Your task to perform on an android device: Open calendar and show me the second week of next month Image 0: 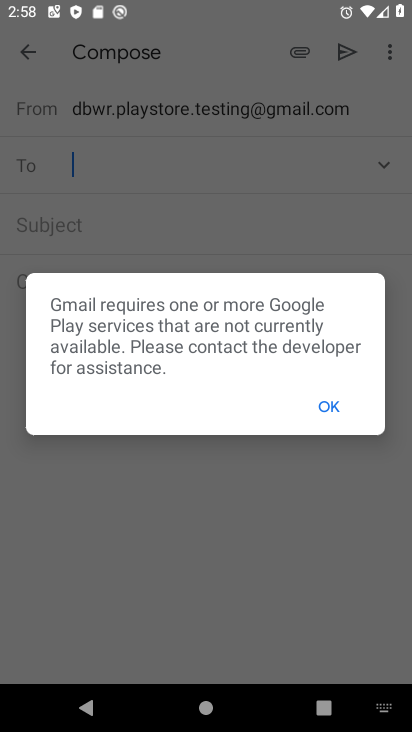
Step 0: click (336, 429)
Your task to perform on an android device: Open calendar and show me the second week of next month Image 1: 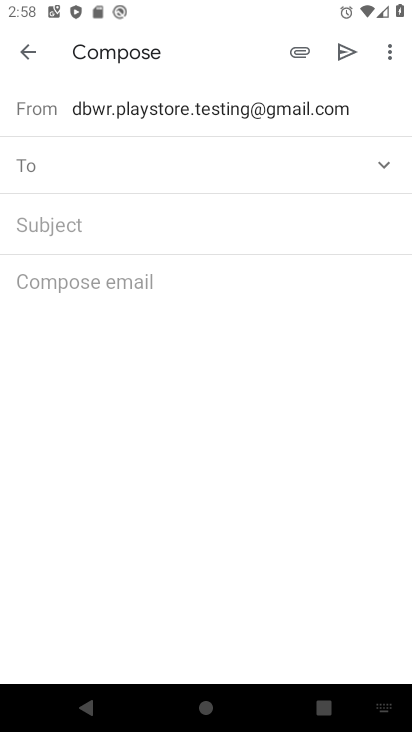
Step 1: press home button
Your task to perform on an android device: Open calendar and show me the second week of next month Image 2: 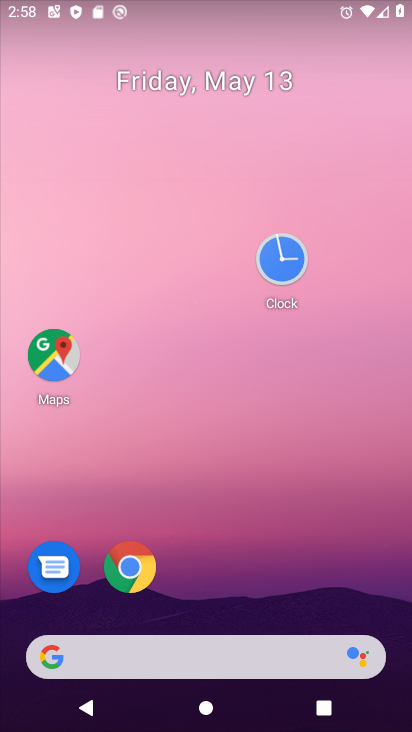
Step 2: drag from (209, 584) to (270, 224)
Your task to perform on an android device: Open calendar and show me the second week of next month Image 3: 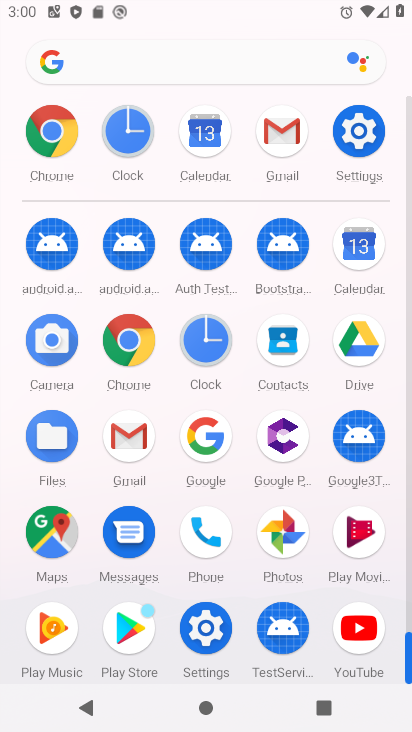
Step 3: click (356, 245)
Your task to perform on an android device: Open calendar and show me the second week of next month Image 4: 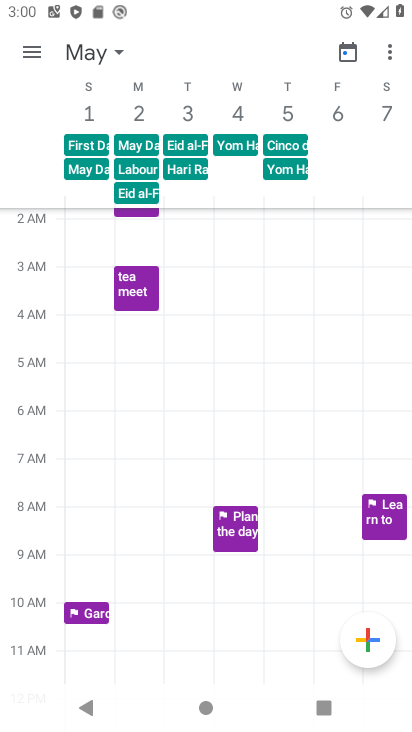
Step 4: click (95, 51)
Your task to perform on an android device: Open calendar and show me the second week of next month Image 5: 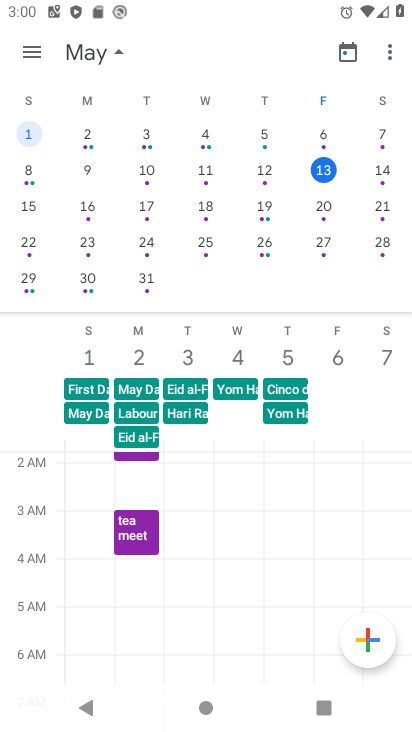
Step 5: task complete